Your task to perform on an android device: Open Google Chrome and click the shortcut for Amazon.com Image 0: 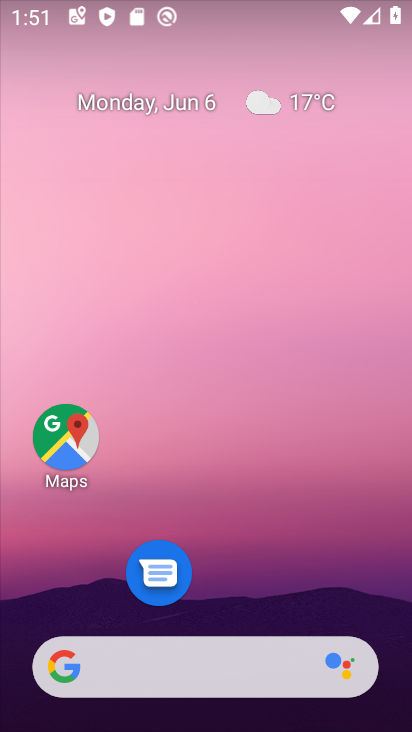
Step 0: drag from (237, 539) to (269, 19)
Your task to perform on an android device: Open Google Chrome and click the shortcut for Amazon.com Image 1: 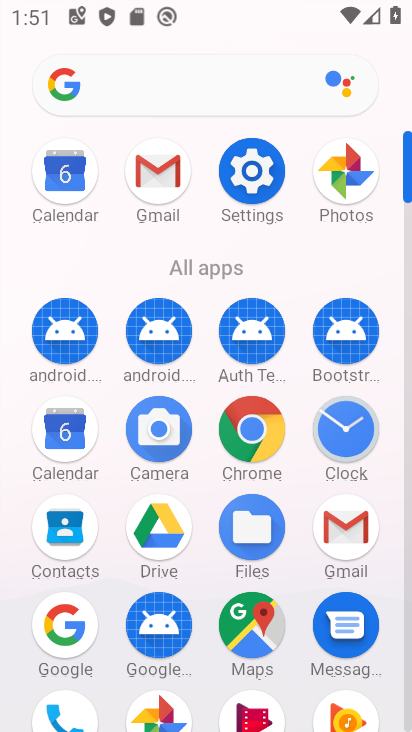
Step 1: click (258, 441)
Your task to perform on an android device: Open Google Chrome and click the shortcut for Amazon.com Image 2: 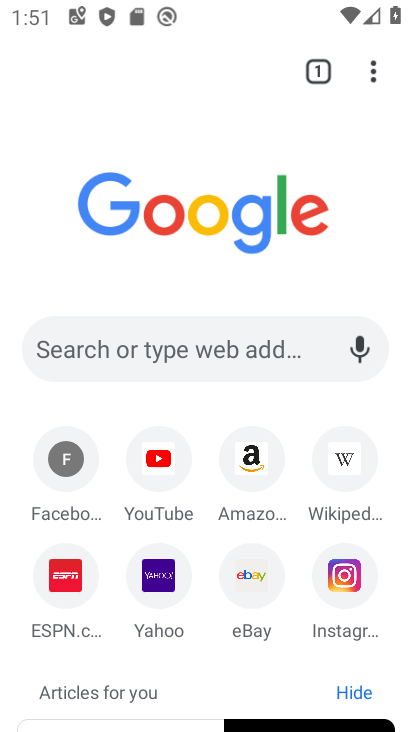
Step 2: click (257, 468)
Your task to perform on an android device: Open Google Chrome and click the shortcut for Amazon.com Image 3: 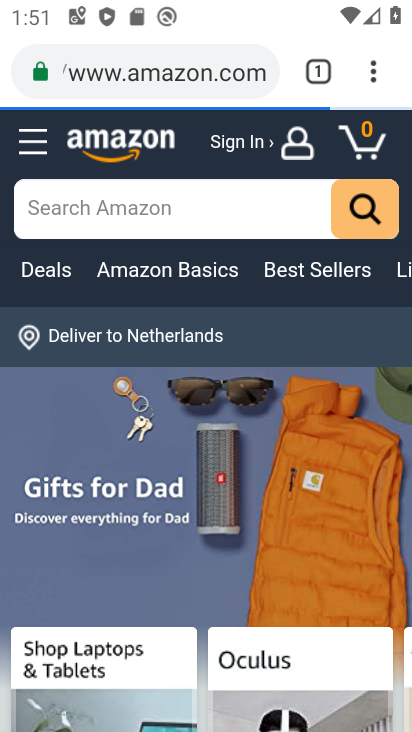
Step 3: task complete